Your task to perform on an android device: open sync settings in chrome Image 0: 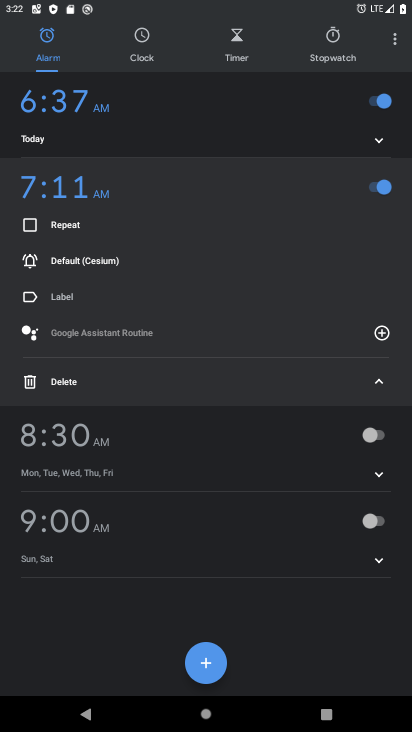
Step 0: press home button
Your task to perform on an android device: open sync settings in chrome Image 1: 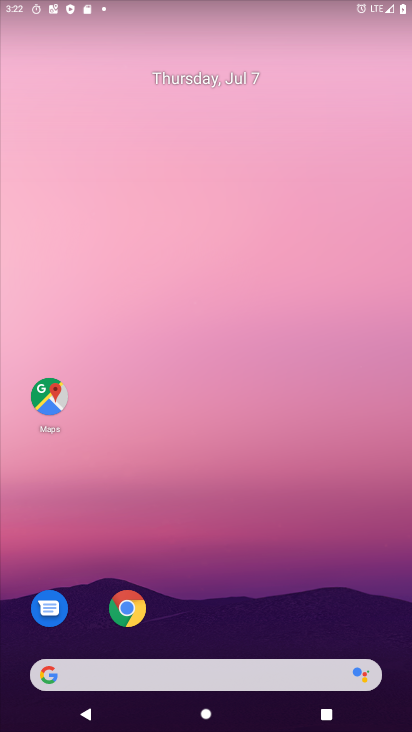
Step 1: click (130, 609)
Your task to perform on an android device: open sync settings in chrome Image 2: 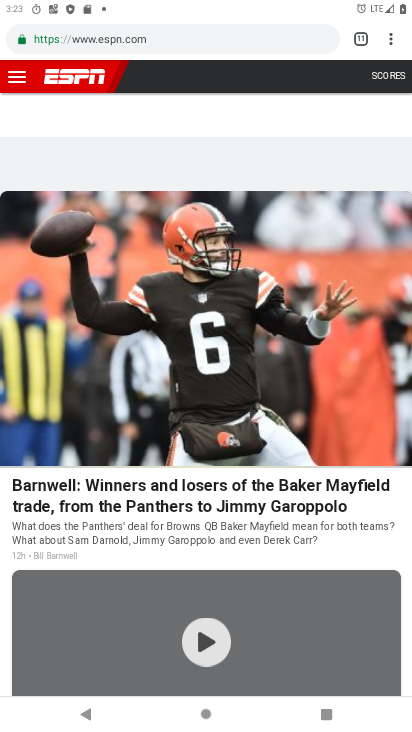
Step 2: click (392, 41)
Your task to perform on an android device: open sync settings in chrome Image 3: 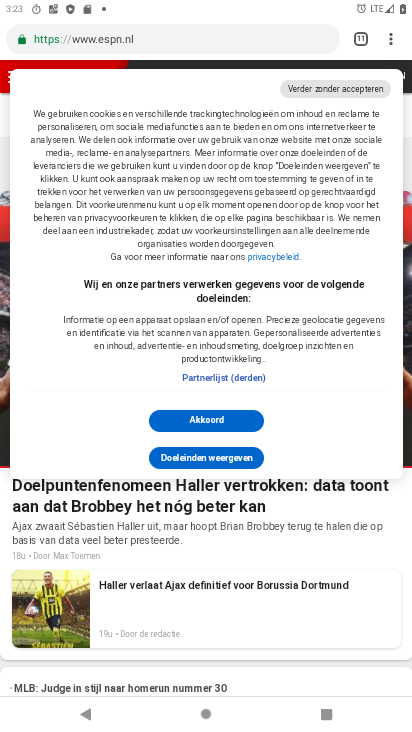
Step 3: click (390, 44)
Your task to perform on an android device: open sync settings in chrome Image 4: 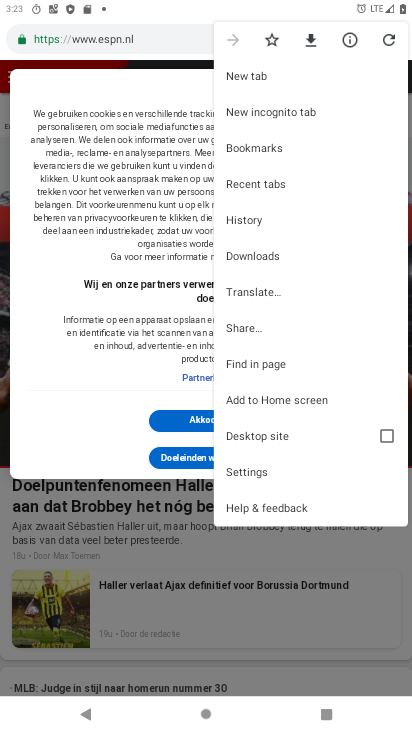
Step 4: click (241, 472)
Your task to perform on an android device: open sync settings in chrome Image 5: 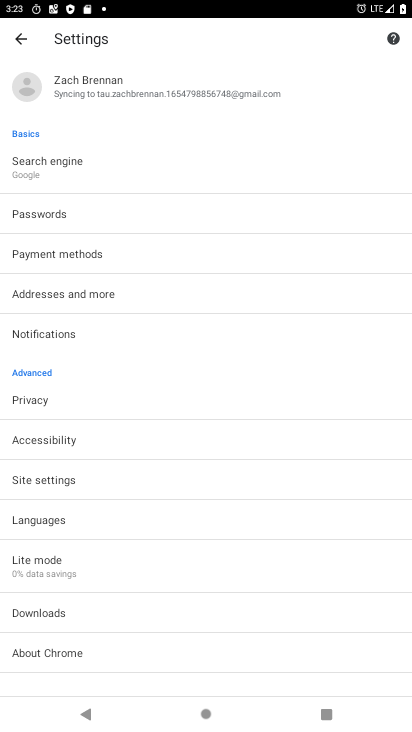
Step 5: click (42, 476)
Your task to perform on an android device: open sync settings in chrome Image 6: 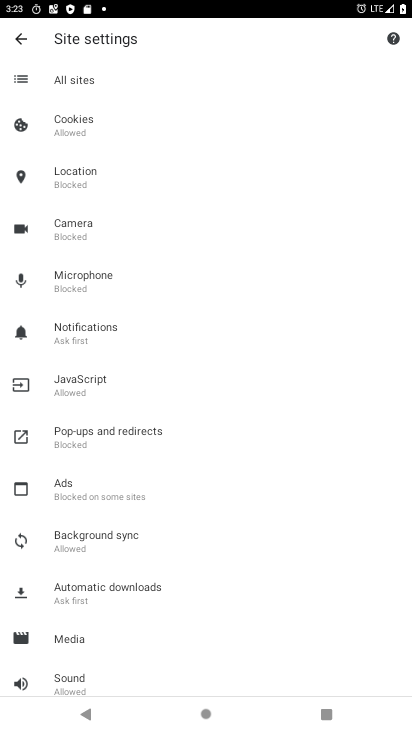
Step 6: click (87, 544)
Your task to perform on an android device: open sync settings in chrome Image 7: 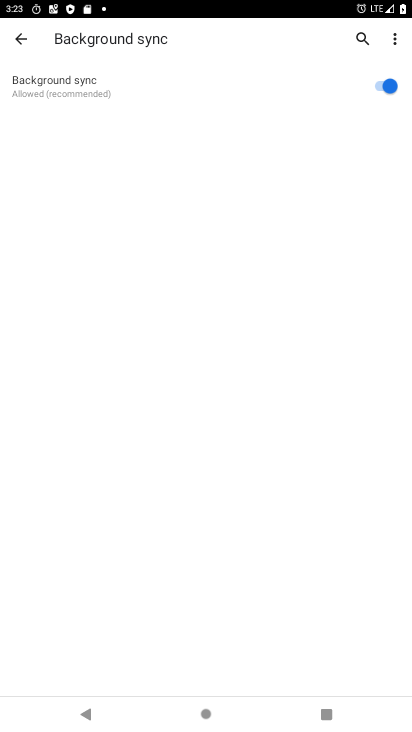
Step 7: task complete